Your task to perform on an android device: Is it going to rain tomorrow? Image 0: 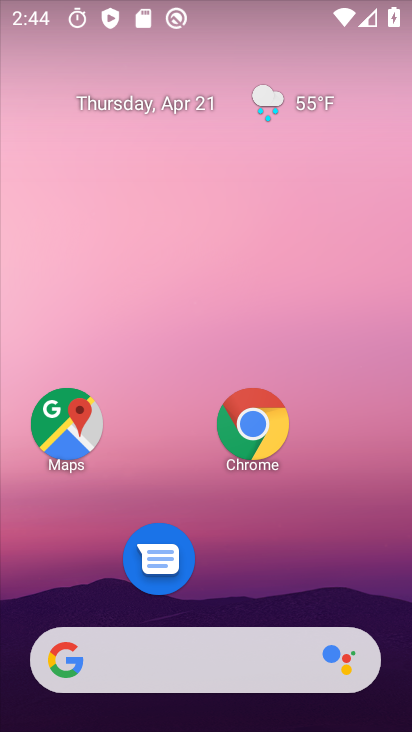
Step 0: drag from (255, 560) to (235, 167)
Your task to perform on an android device: Is it going to rain tomorrow? Image 1: 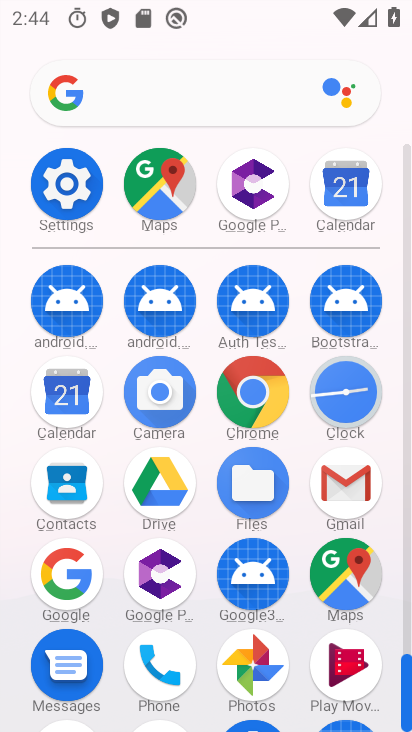
Step 1: drag from (215, 433) to (200, 161)
Your task to perform on an android device: Is it going to rain tomorrow? Image 2: 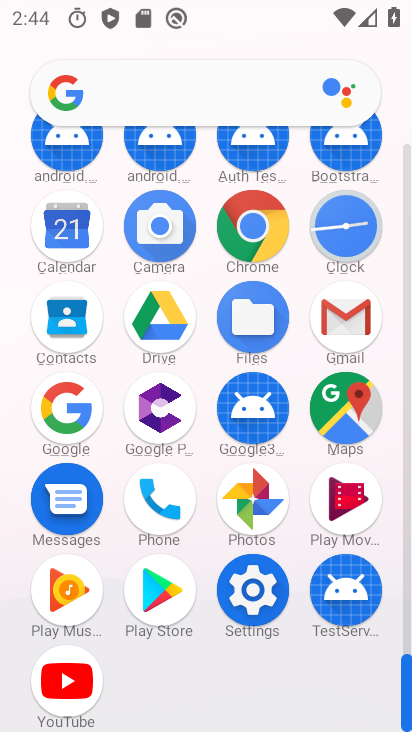
Step 2: drag from (201, 265) to (206, 644)
Your task to perform on an android device: Is it going to rain tomorrow? Image 3: 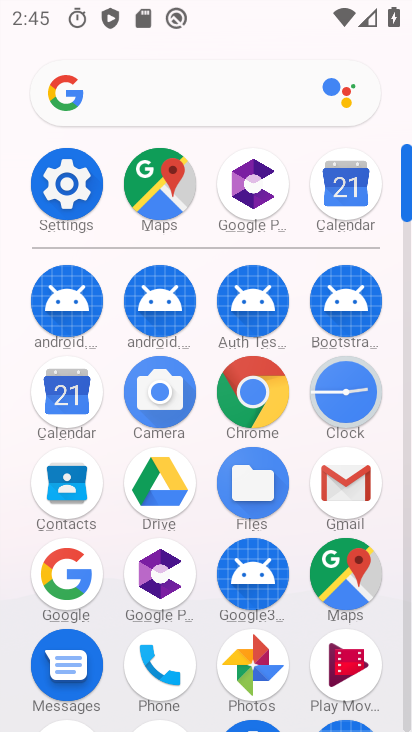
Step 3: drag from (224, 550) to (208, 390)
Your task to perform on an android device: Is it going to rain tomorrow? Image 4: 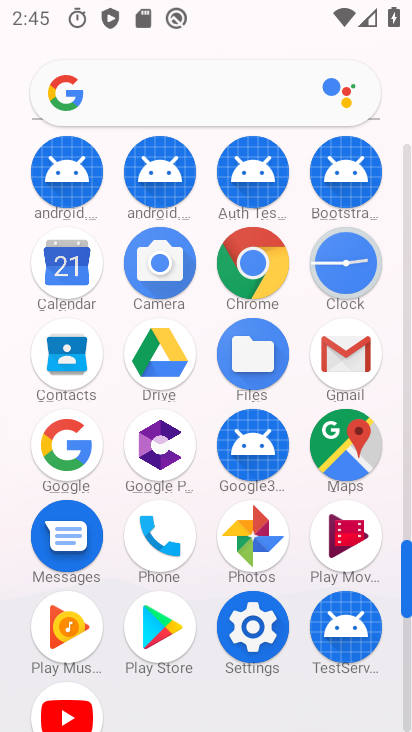
Step 4: click (70, 452)
Your task to perform on an android device: Is it going to rain tomorrow? Image 5: 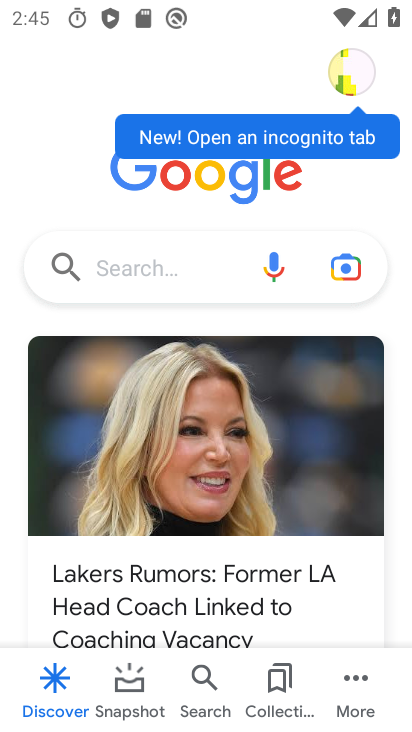
Step 5: click (181, 268)
Your task to perform on an android device: Is it going to rain tomorrow? Image 6: 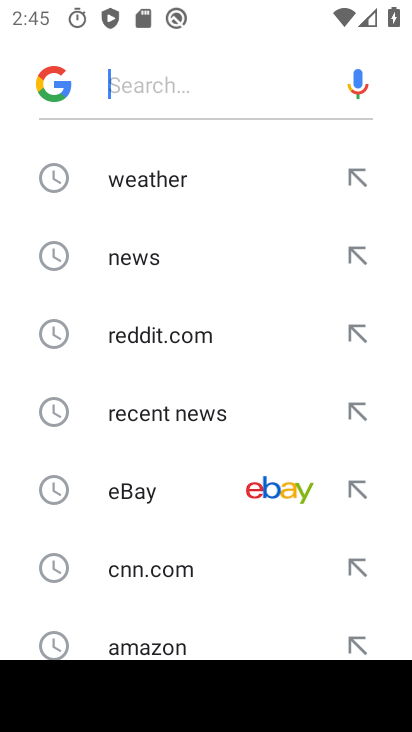
Step 6: type "is it going to rain tomorrow"
Your task to perform on an android device: Is it going to rain tomorrow? Image 7: 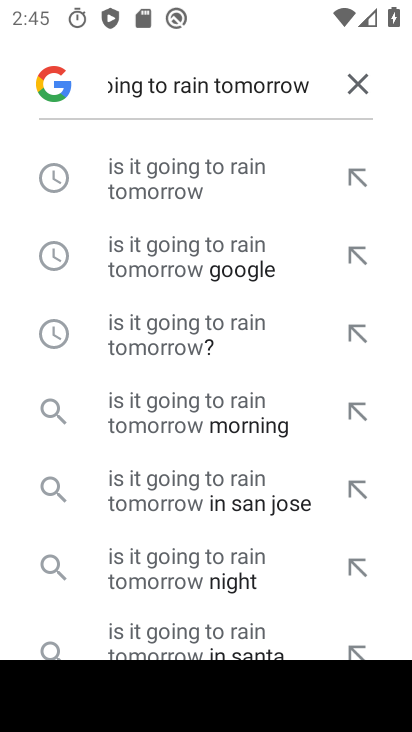
Step 7: click (169, 188)
Your task to perform on an android device: Is it going to rain tomorrow? Image 8: 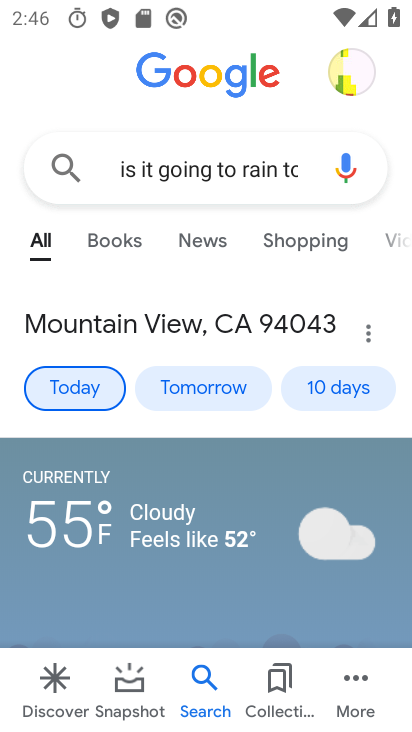
Step 8: task complete